Your task to perform on an android device: change the upload size in google photos Image 0: 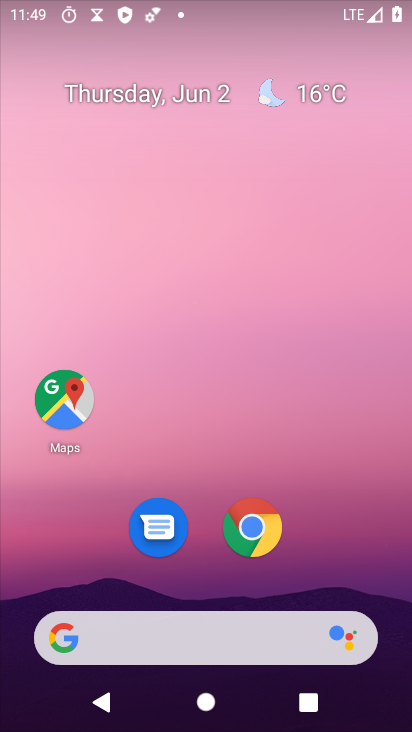
Step 0: drag from (223, 629) to (211, 107)
Your task to perform on an android device: change the upload size in google photos Image 1: 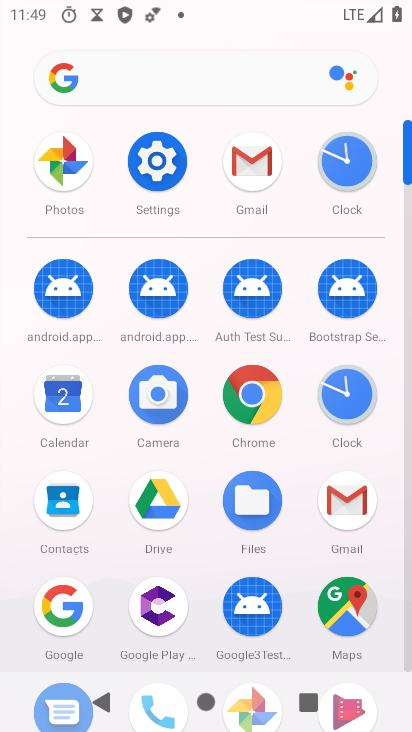
Step 1: drag from (194, 516) to (128, 9)
Your task to perform on an android device: change the upload size in google photos Image 2: 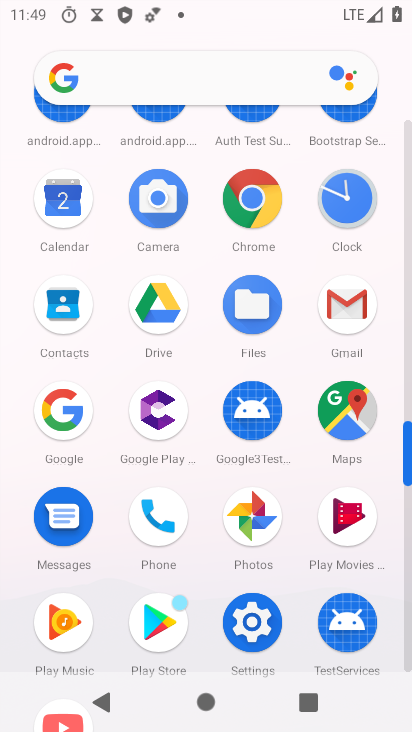
Step 2: click (263, 519)
Your task to perform on an android device: change the upload size in google photos Image 3: 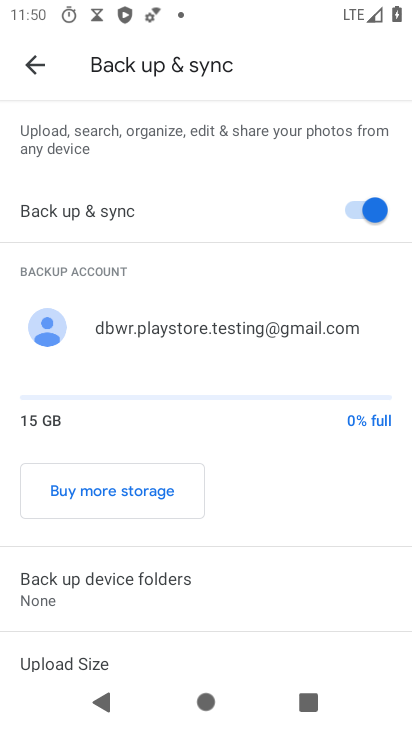
Step 3: drag from (175, 578) to (177, 28)
Your task to perform on an android device: change the upload size in google photos Image 4: 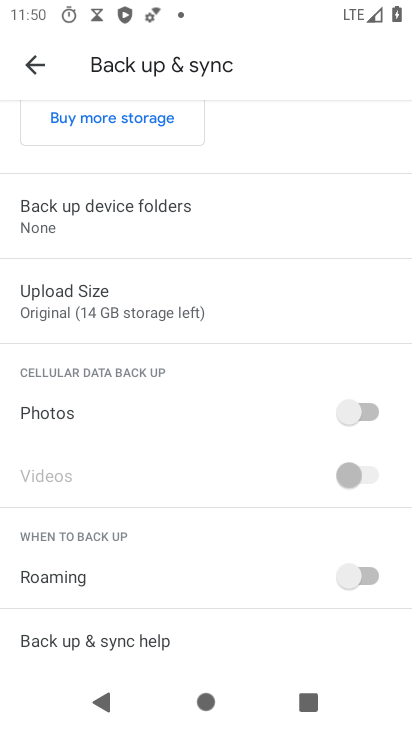
Step 4: click (123, 289)
Your task to perform on an android device: change the upload size in google photos Image 5: 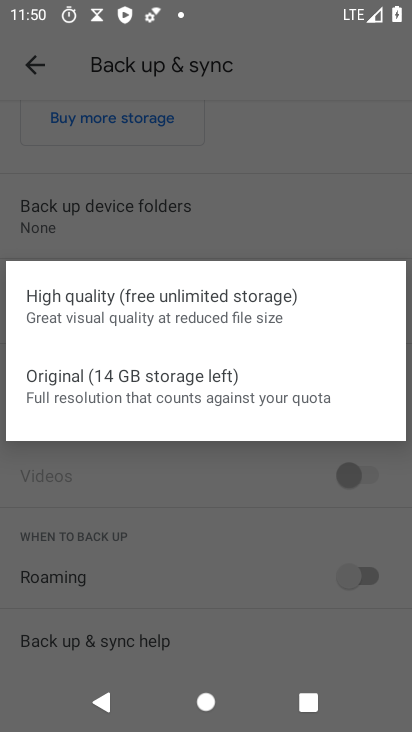
Step 5: click (85, 319)
Your task to perform on an android device: change the upload size in google photos Image 6: 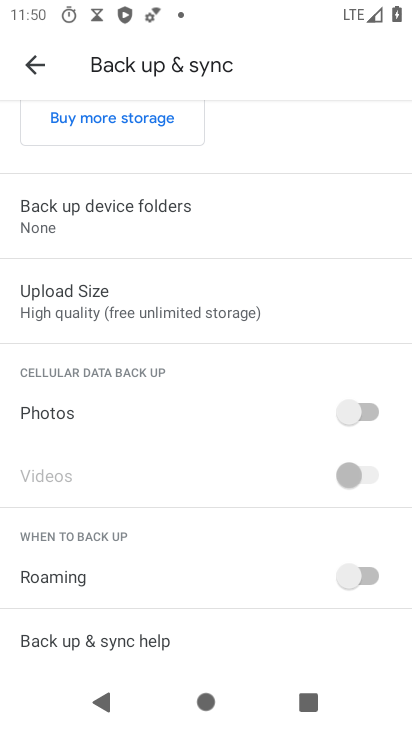
Step 6: task complete